Your task to perform on an android device: see creations saved in the google photos Image 0: 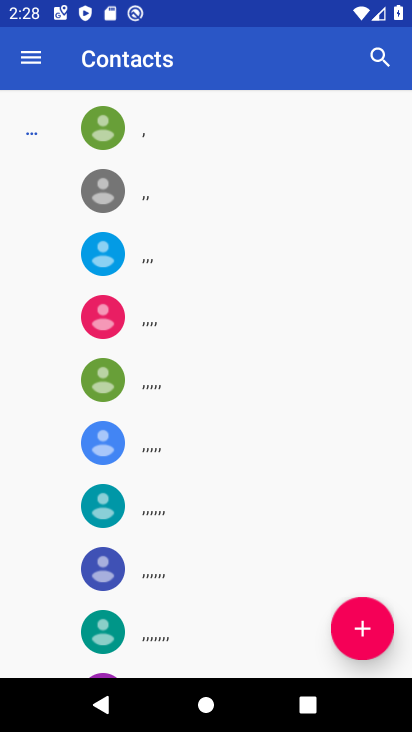
Step 0: press home button
Your task to perform on an android device: see creations saved in the google photos Image 1: 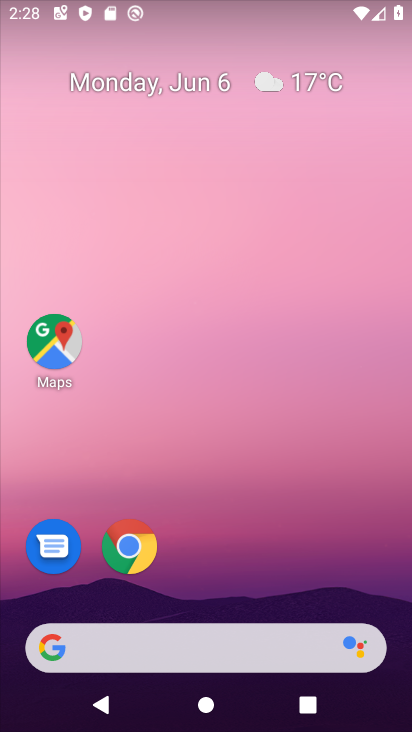
Step 1: drag from (300, 599) to (252, 126)
Your task to perform on an android device: see creations saved in the google photos Image 2: 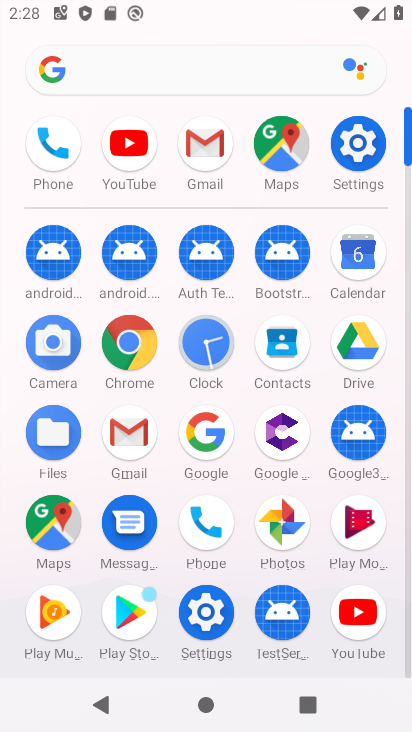
Step 2: click (291, 536)
Your task to perform on an android device: see creations saved in the google photos Image 3: 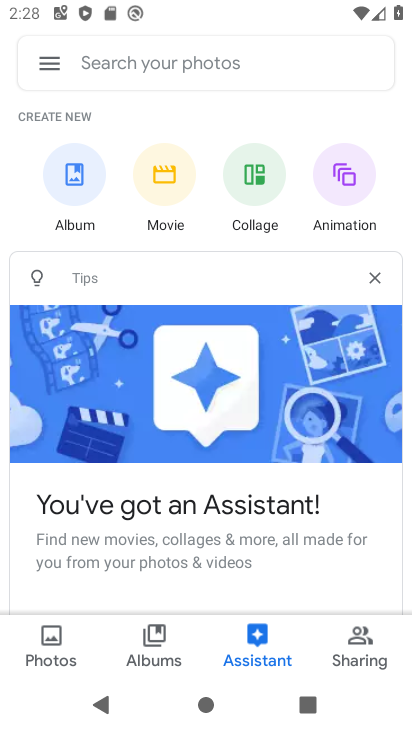
Step 3: click (384, 646)
Your task to perform on an android device: see creations saved in the google photos Image 4: 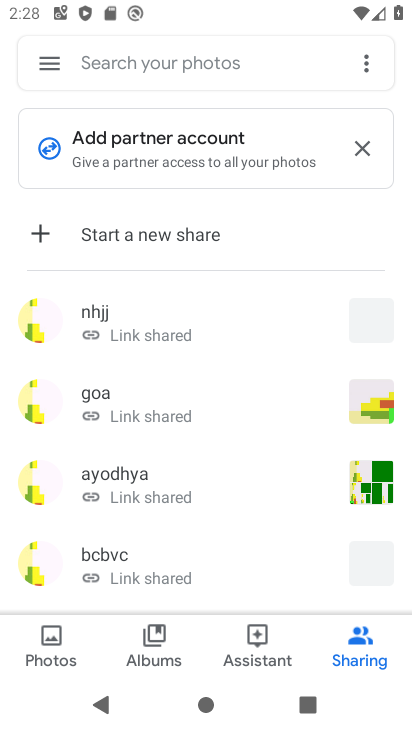
Step 4: task complete